Your task to perform on an android device: open sync settings in chrome Image 0: 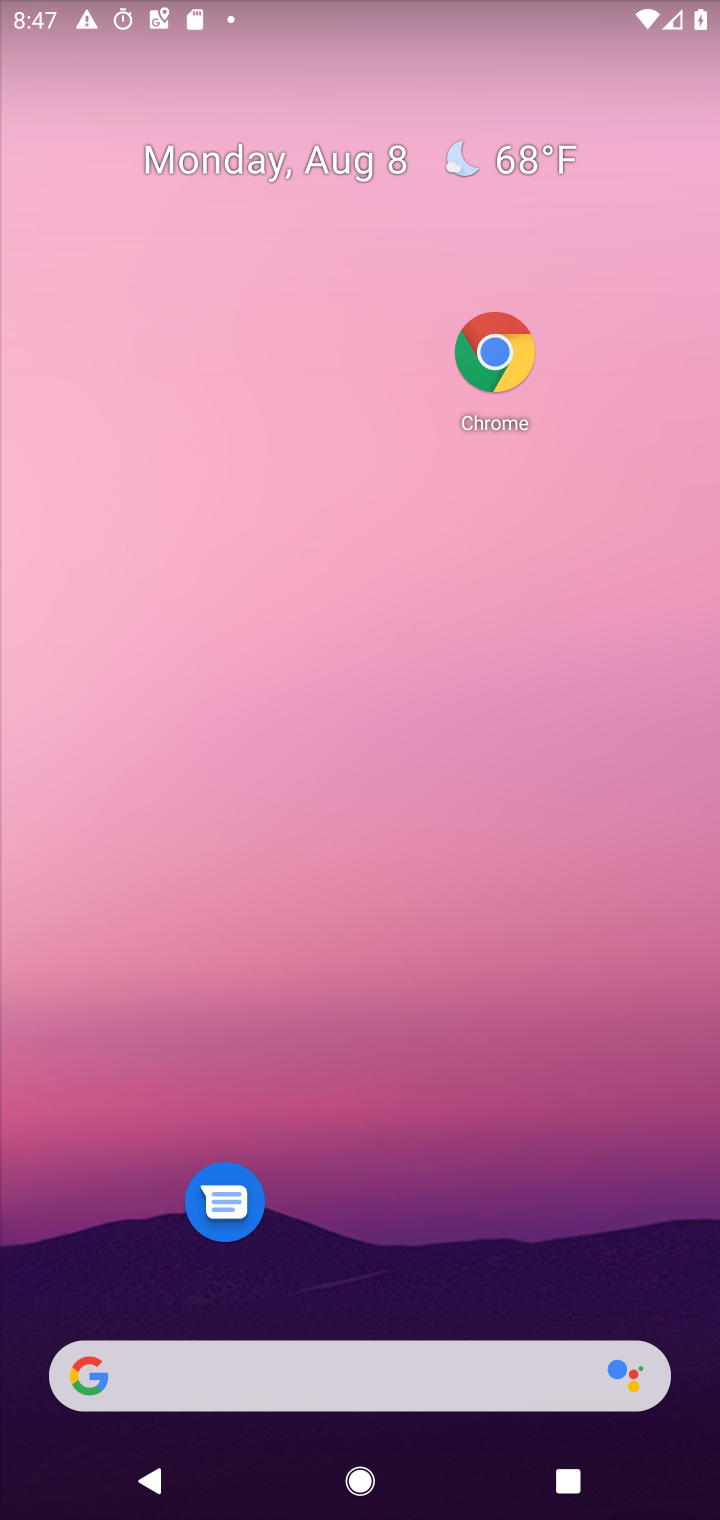
Step 0: drag from (366, 969) to (387, 138)
Your task to perform on an android device: open sync settings in chrome Image 1: 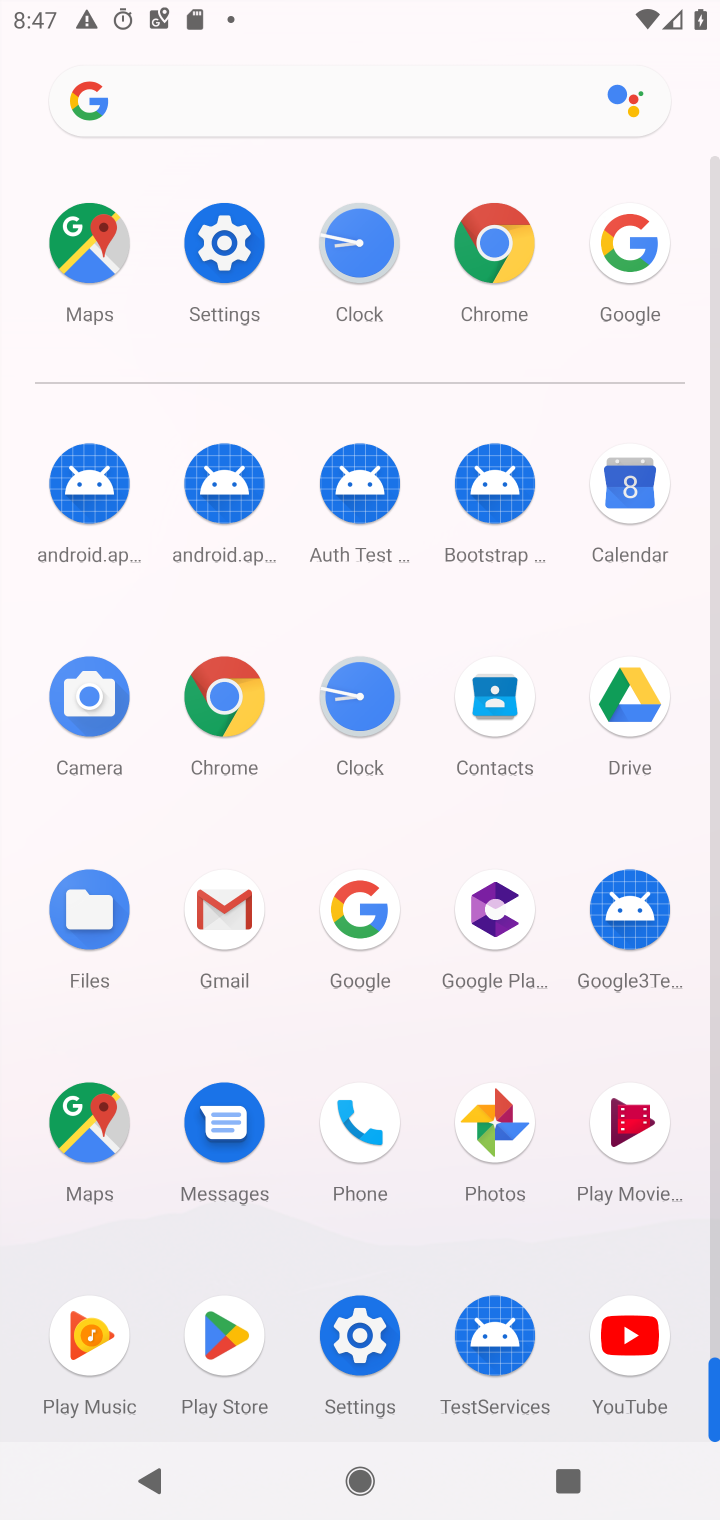
Step 1: click (481, 271)
Your task to perform on an android device: open sync settings in chrome Image 2: 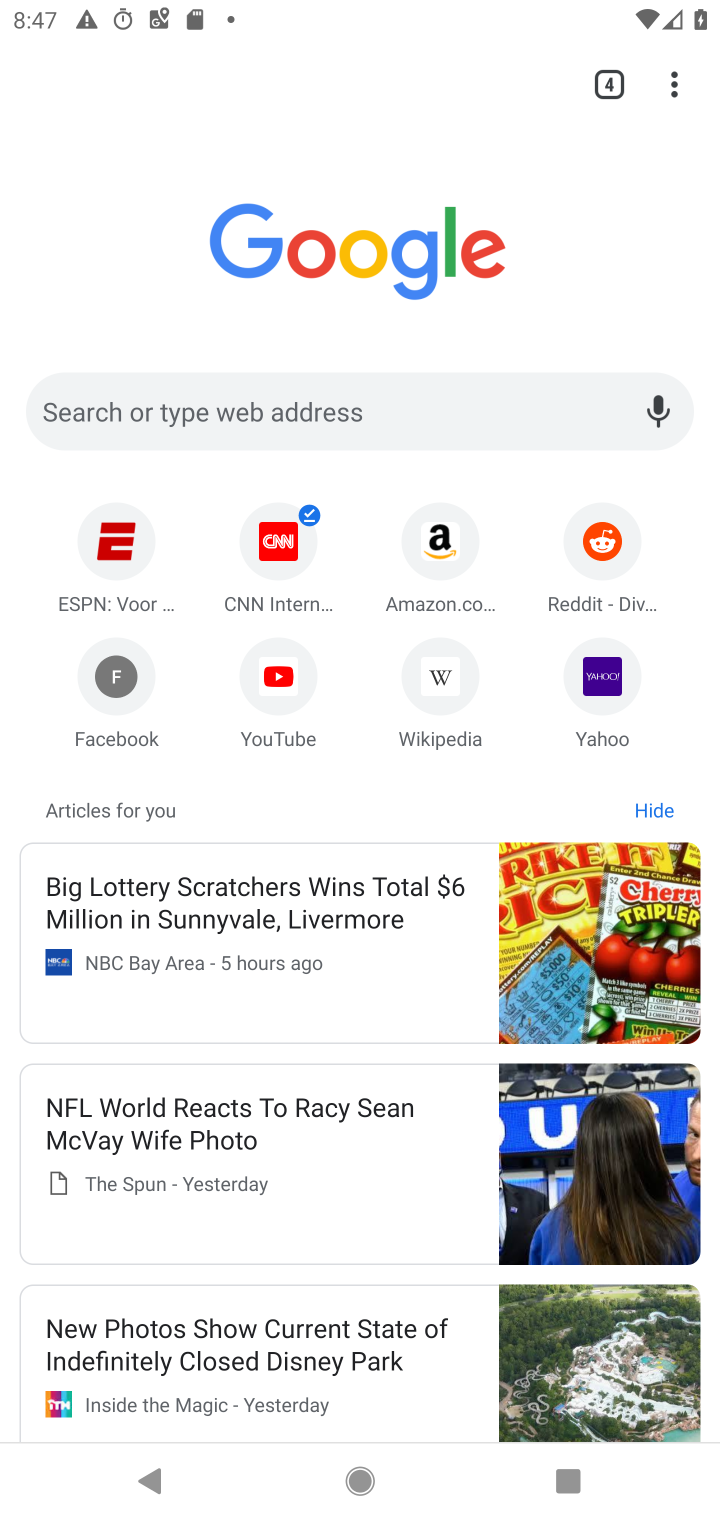
Step 2: click (678, 90)
Your task to perform on an android device: open sync settings in chrome Image 3: 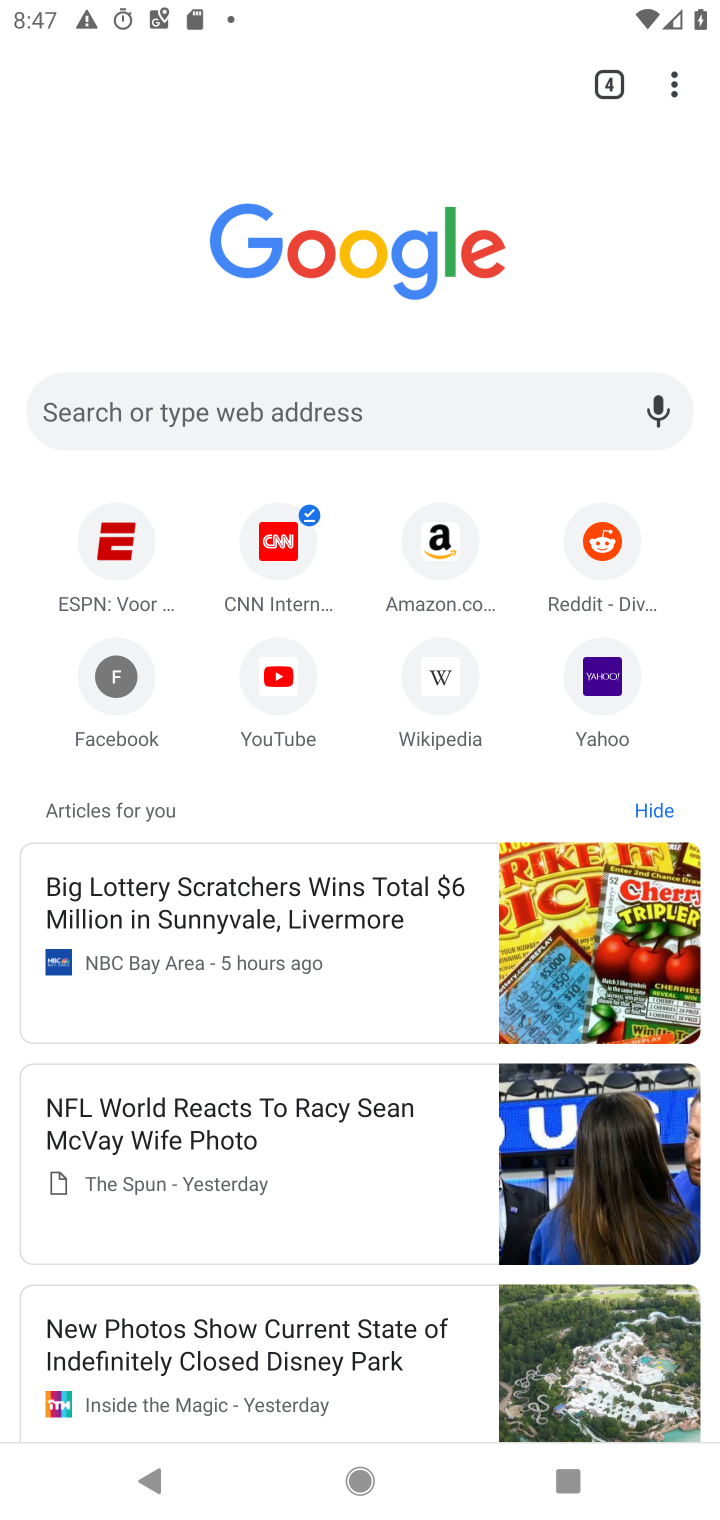
Step 3: click (678, 90)
Your task to perform on an android device: open sync settings in chrome Image 4: 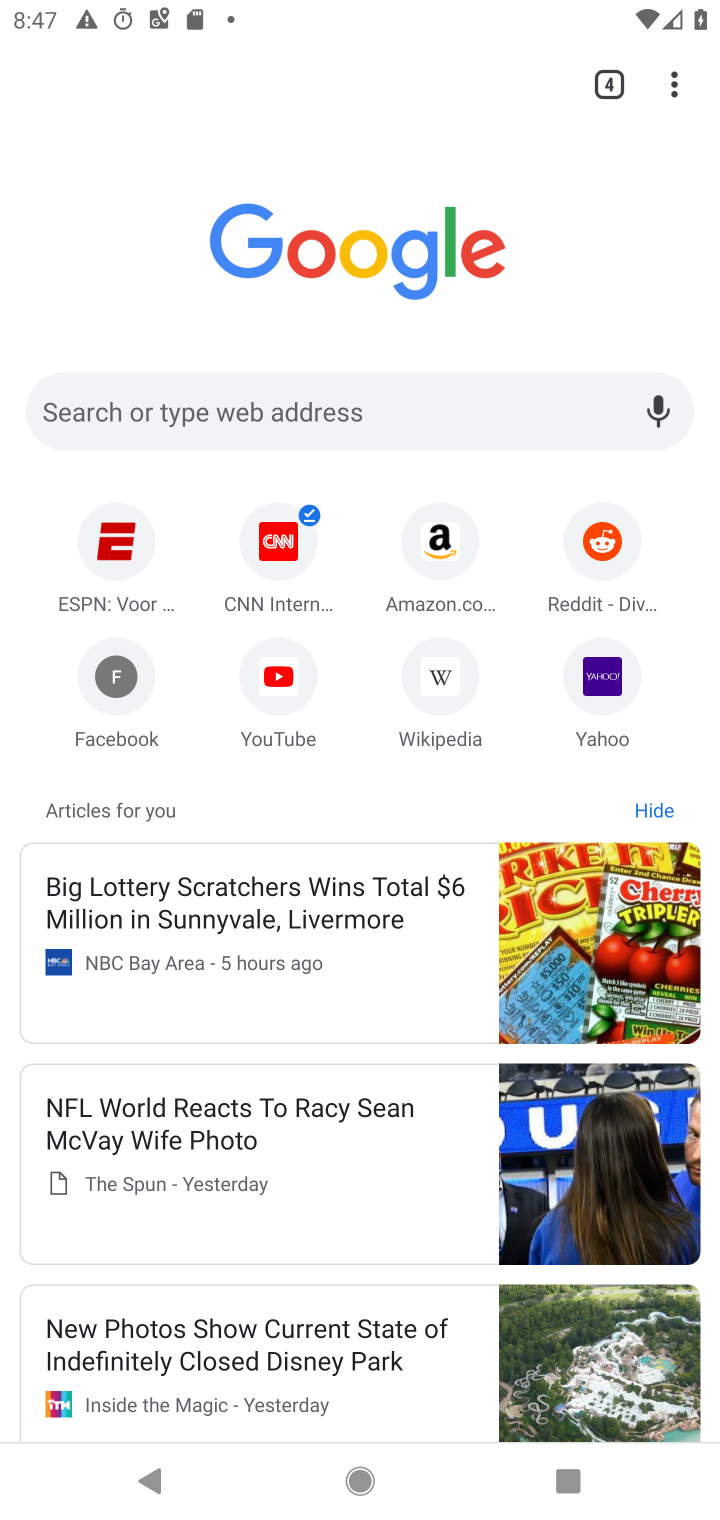
Step 4: click (678, 90)
Your task to perform on an android device: open sync settings in chrome Image 5: 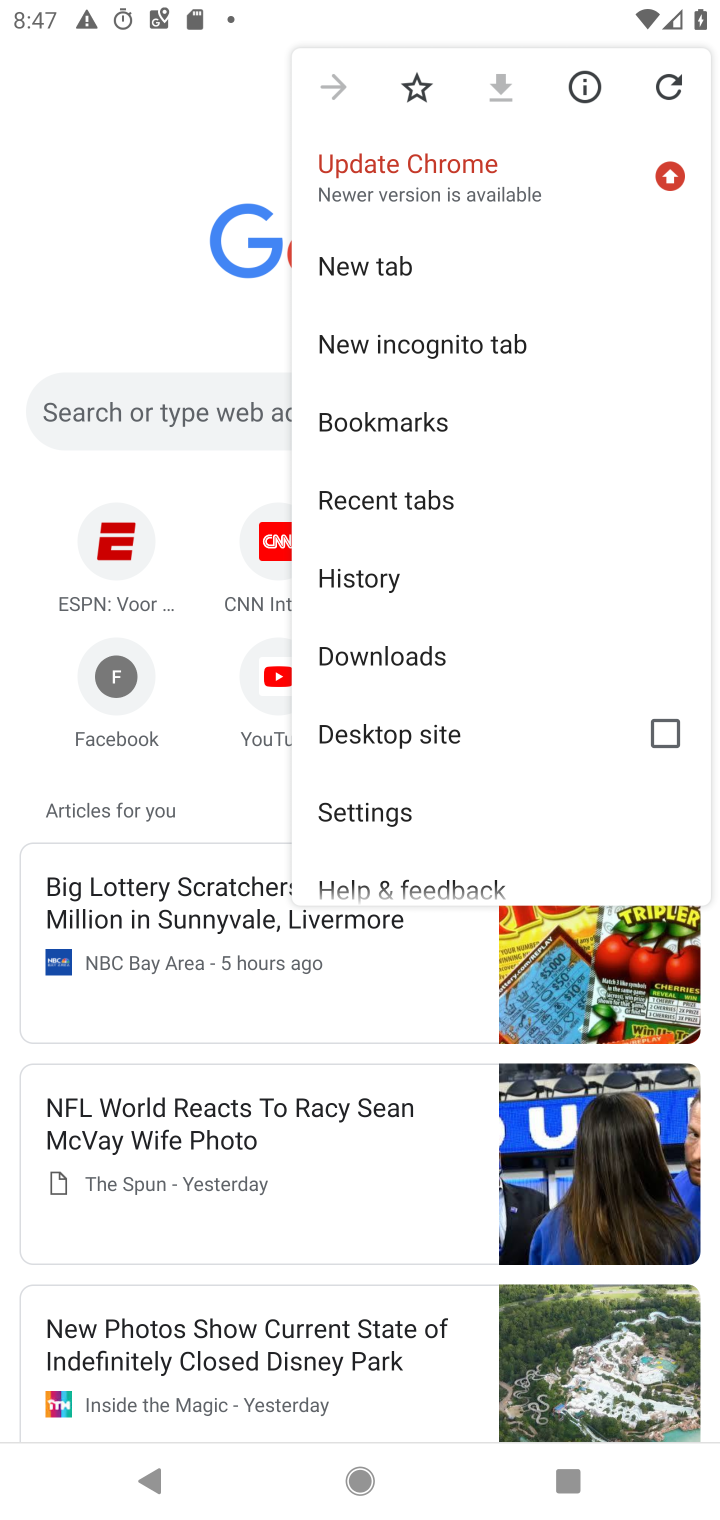
Step 5: click (359, 817)
Your task to perform on an android device: open sync settings in chrome Image 6: 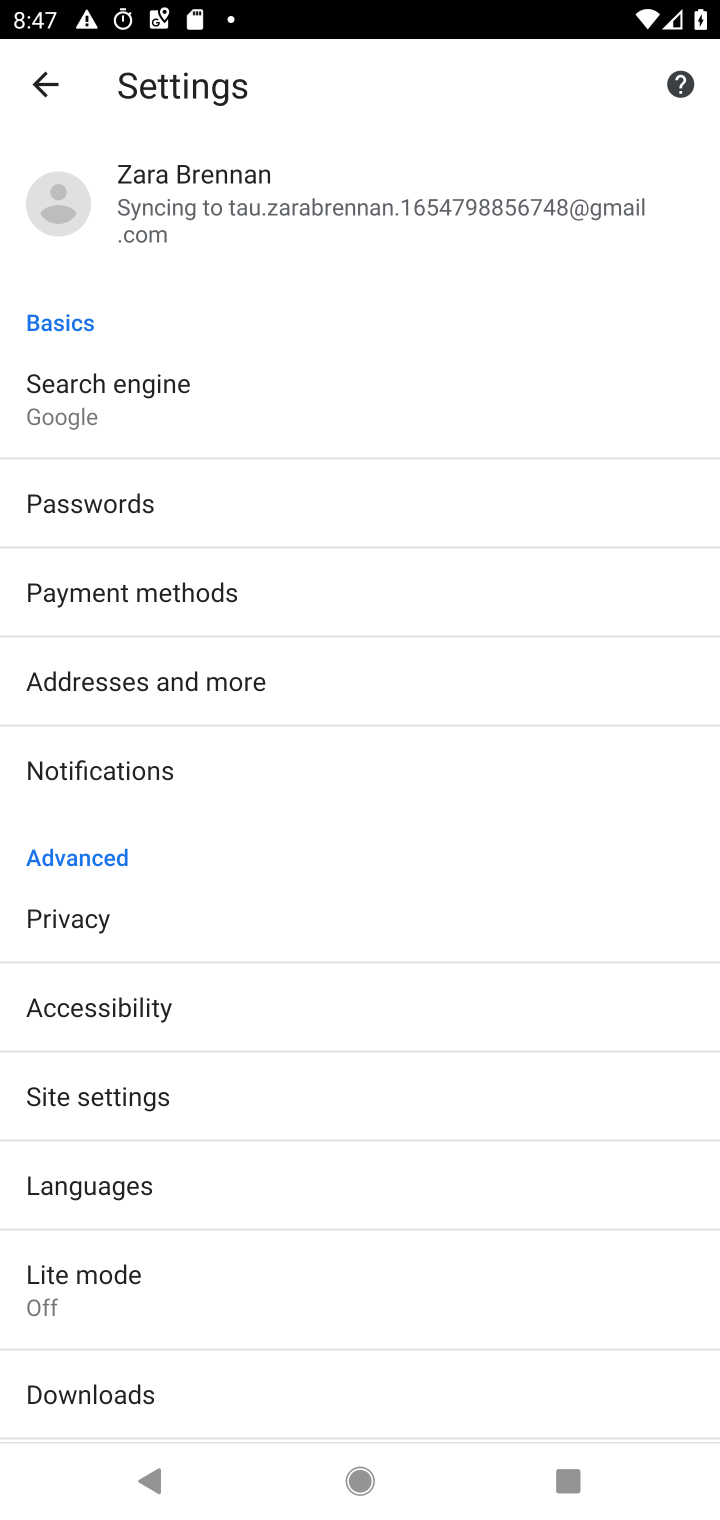
Step 6: click (293, 234)
Your task to perform on an android device: open sync settings in chrome Image 7: 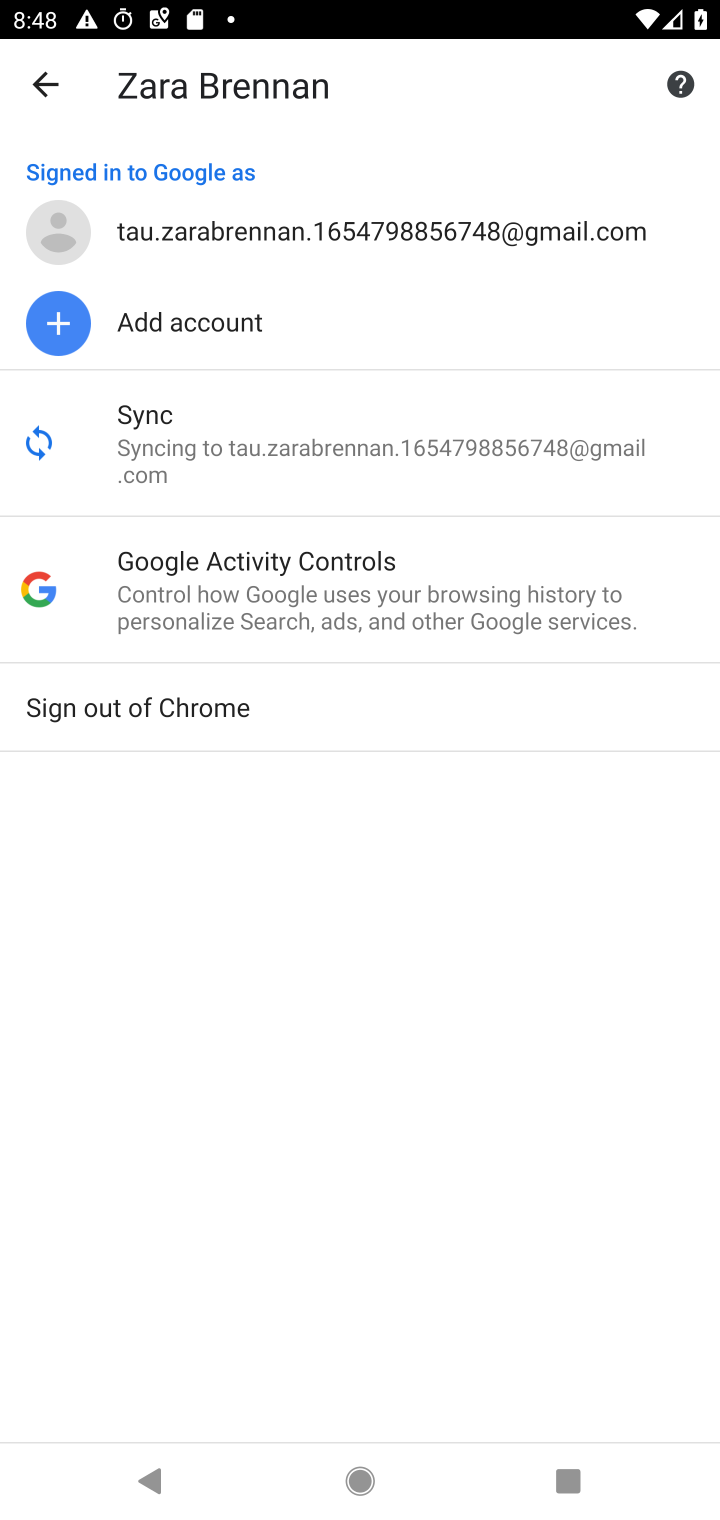
Step 7: click (293, 234)
Your task to perform on an android device: open sync settings in chrome Image 8: 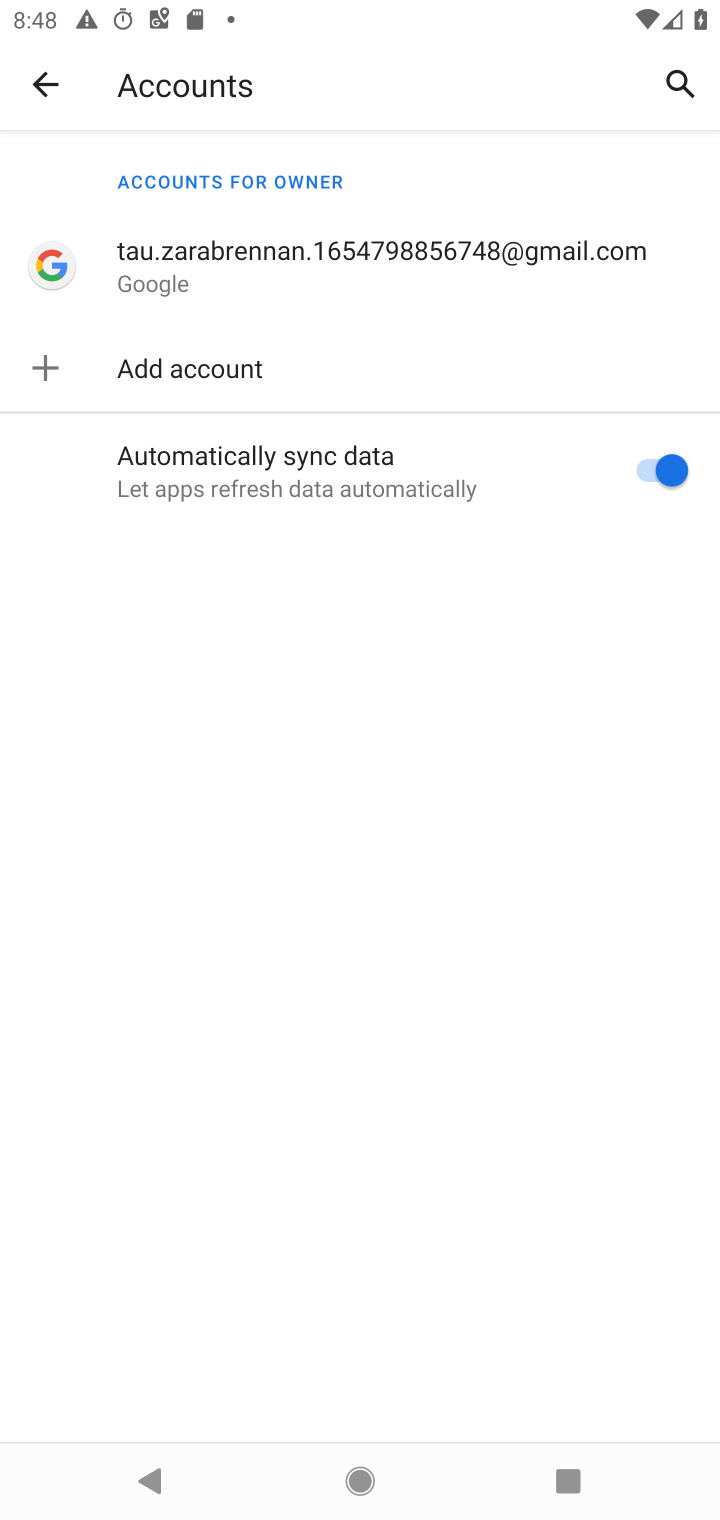
Step 8: task complete